Your task to perform on an android device: Open the web browser Image 0: 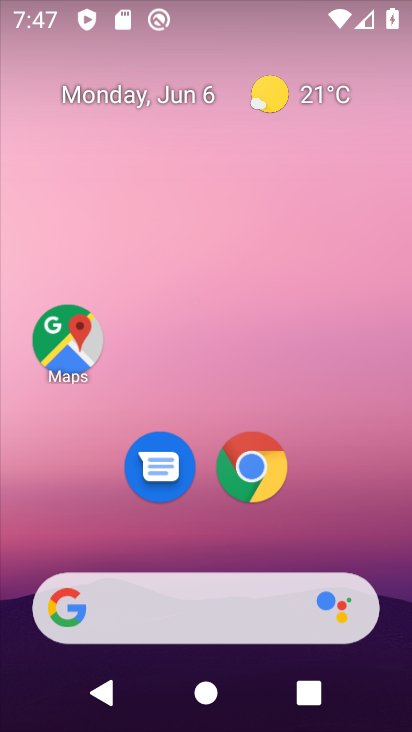
Step 0: click (263, 90)
Your task to perform on an android device: Open the web browser Image 1: 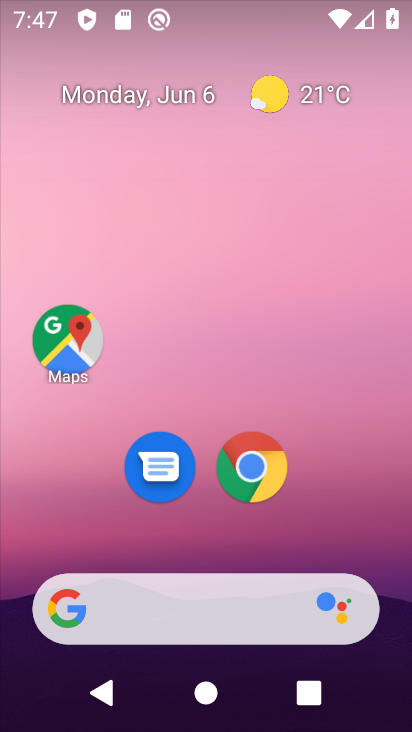
Step 1: drag from (186, 74) to (246, 114)
Your task to perform on an android device: Open the web browser Image 2: 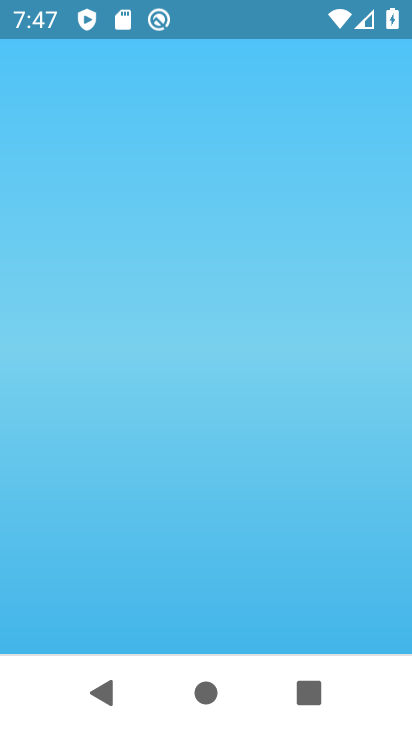
Step 2: drag from (285, 45) to (332, 99)
Your task to perform on an android device: Open the web browser Image 3: 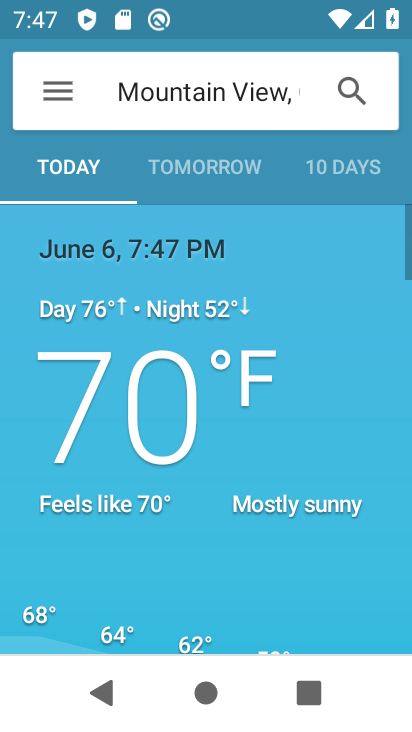
Step 3: press back button
Your task to perform on an android device: Open the web browser Image 4: 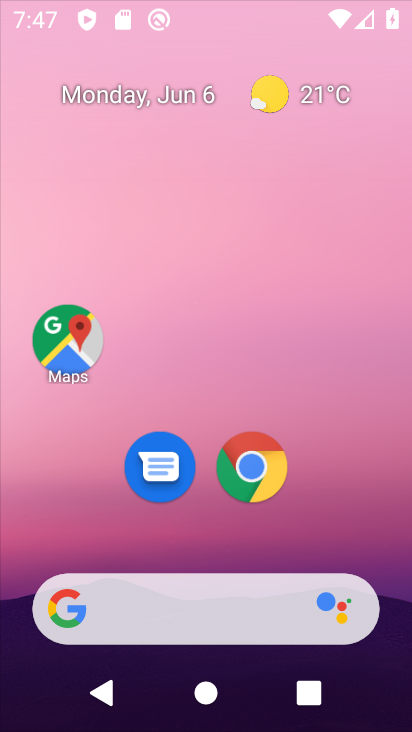
Step 4: press home button
Your task to perform on an android device: Open the web browser Image 5: 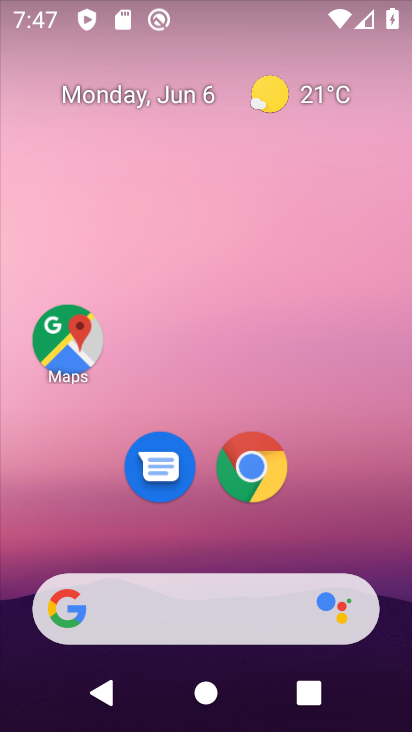
Step 5: drag from (218, 17) to (155, 136)
Your task to perform on an android device: Open the web browser Image 6: 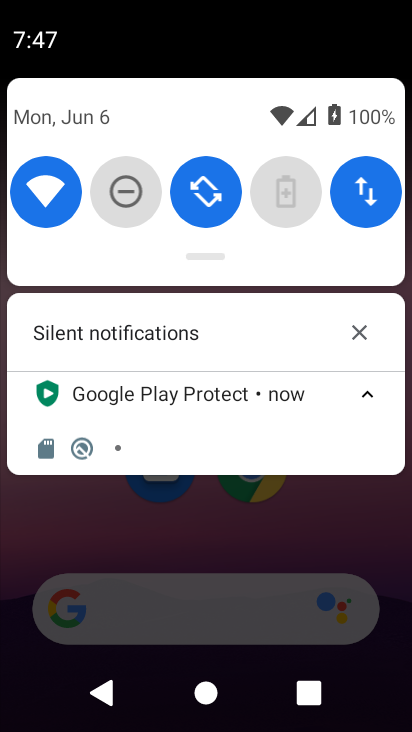
Step 6: drag from (243, 400) to (223, 76)
Your task to perform on an android device: Open the web browser Image 7: 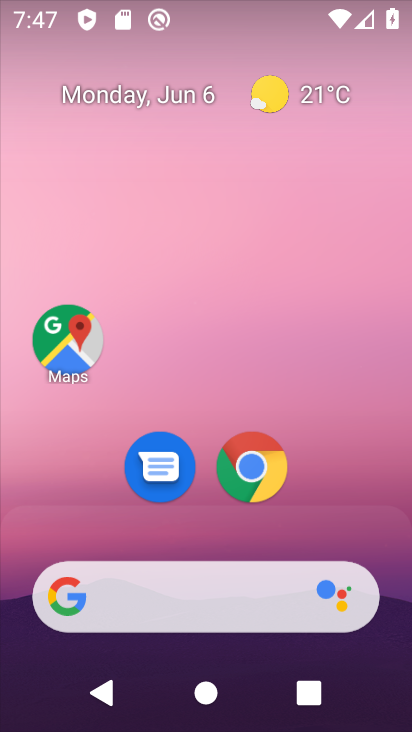
Step 7: drag from (225, 596) to (180, 57)
Your task to perform on an android device: Open the web browser Image 8: 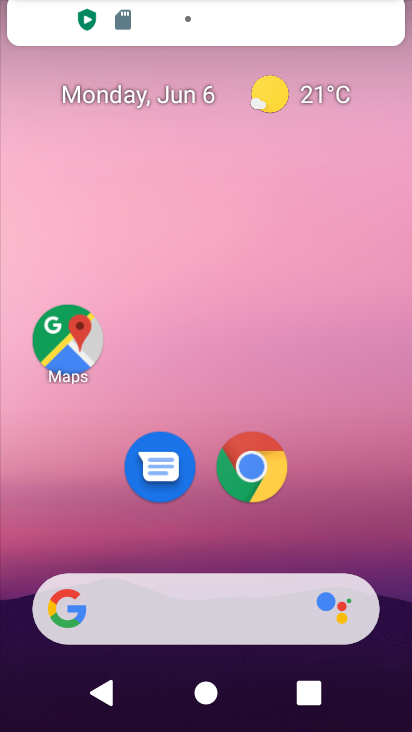
Step 8: drag from (237, 567) to (207, 67)
Your task to perform on an android device: Open the web browser Image 9: 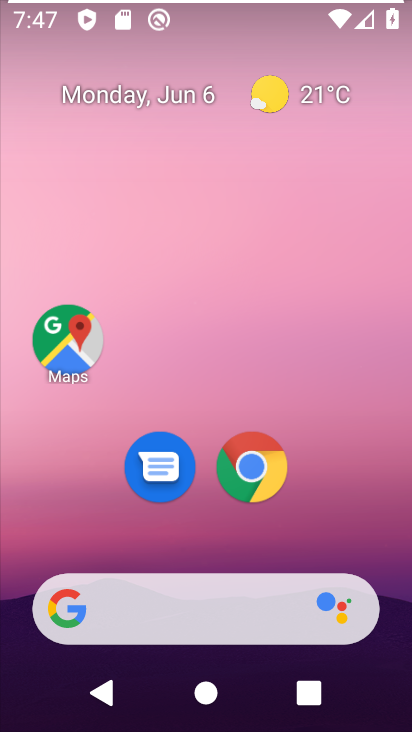
Step 9: drag from (286, 463) to (208, 93)
Your task to perform on an android device: Open the web browser Image 10: 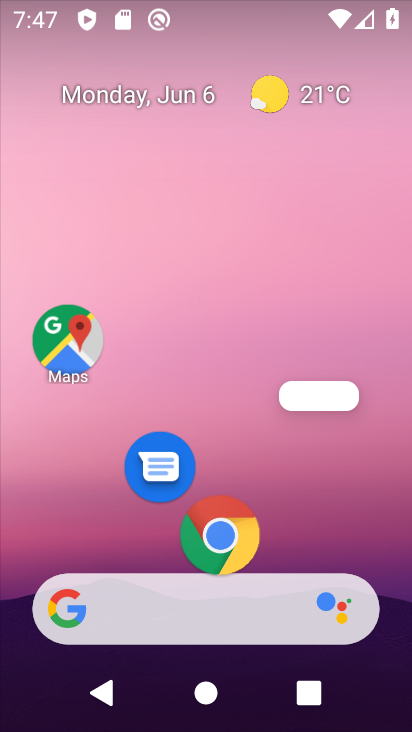
Step 10: drag from (259, 599) to (219, 132)
Your task to perform on an android device: Open the web browser Image 11: 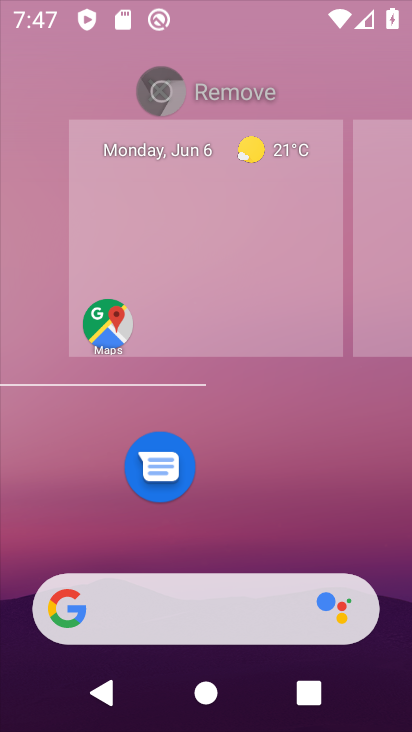
Step 11: drag from (302, 624) to (194, 107)
Your task to perform on an android device: Open the web browser Image 12: 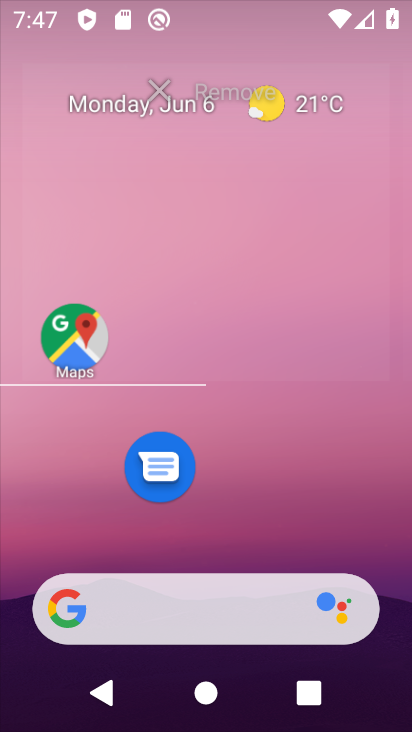
Step 12: drag from (249, 584) to (202, 250)
Your task to perform on an android device: Open the web browser Image 13: 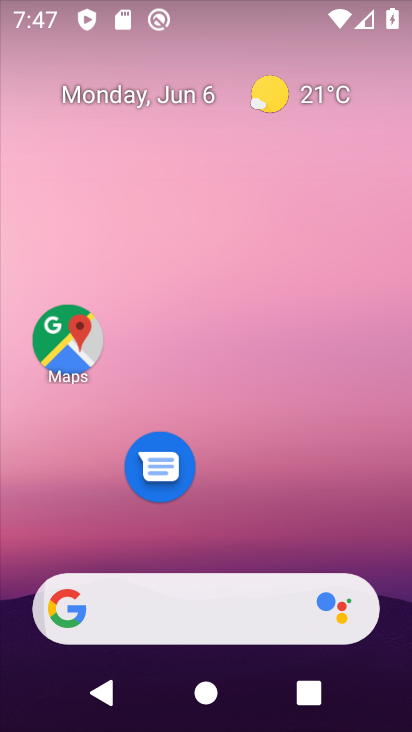
Step 13: click (89, 72)
Your task to perform on an android device: Open the web browser Image 14: 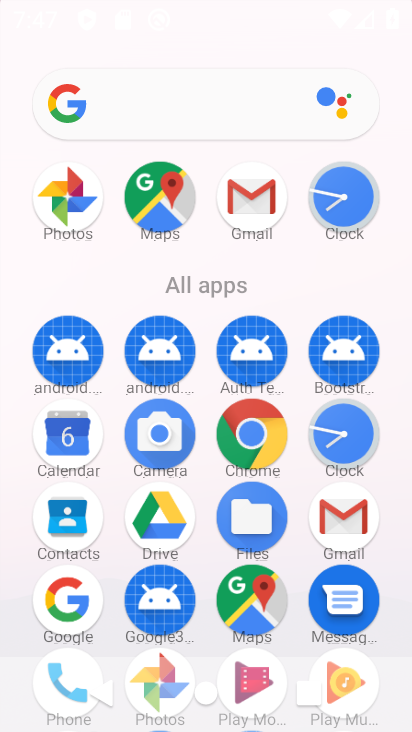
Step 14: drag from (206, 674) to (123, 146)
Your task to perform on an android device: Open the web browser Image 15: 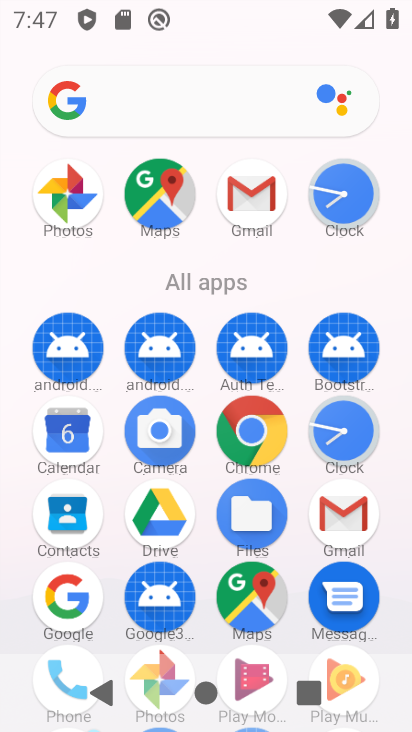
Step 15: drag from (290, 630) to (290, 205)
Your task to perform on an android device: Open the web browser Image 16: 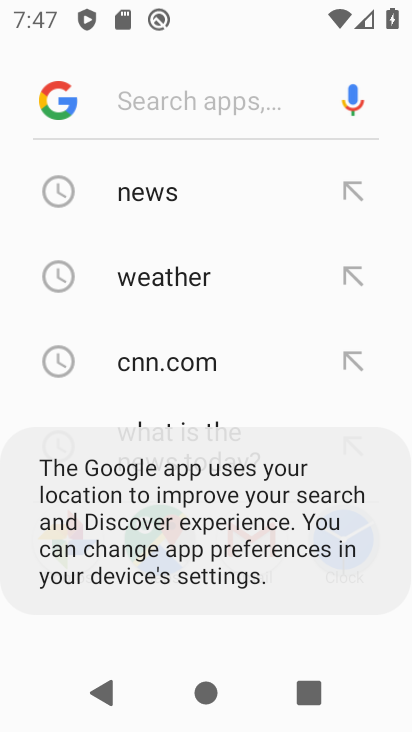
Step 16: drag from (251, 364) to (205, 145)
Your task to perform on an android device: Open the web browser Image 17: 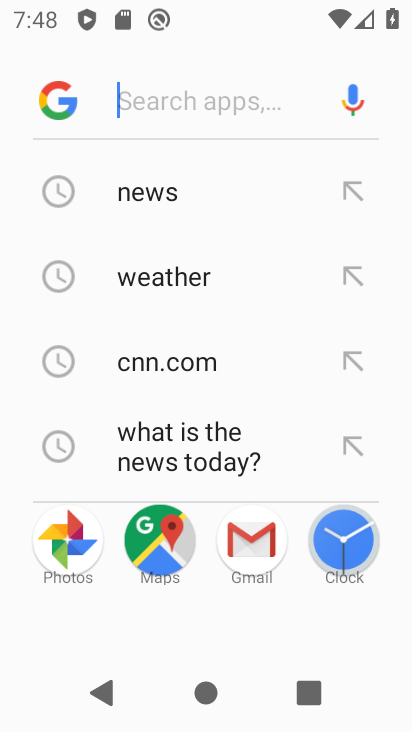
Step 17: press back button
Your task to perform on an android device: Open the web browser Image 18: 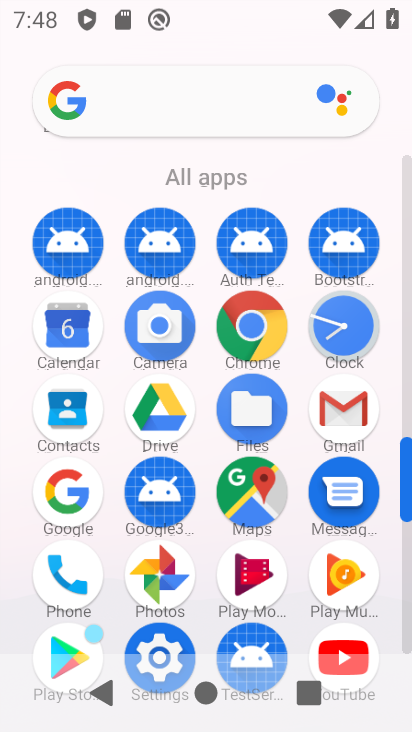
Step 18: click (238, 331)
Your task to perform on an android device: Open the web browser Image 19: 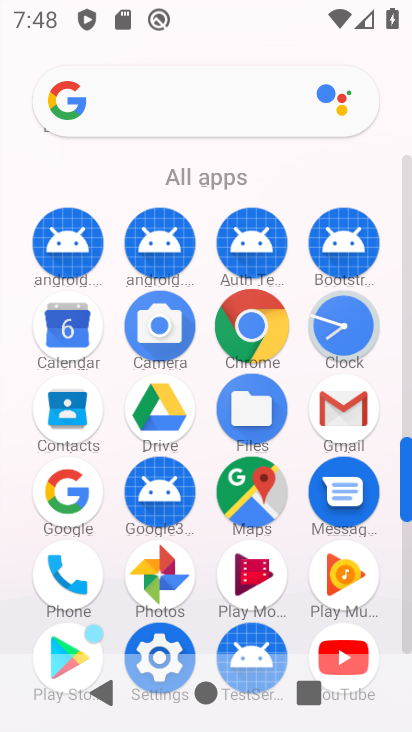
Step 19: click (239, 331)
Your task to perform on an android device: Open the web browser Image 20: 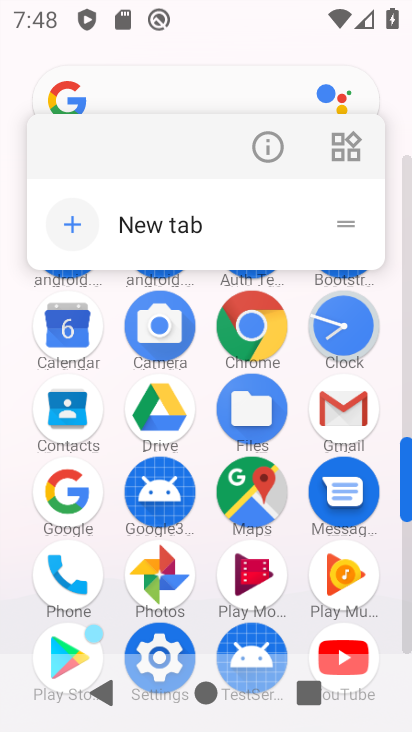
Step 20: click (245, 329)
Your task to perform on an android device: Open the web browser Image 21: 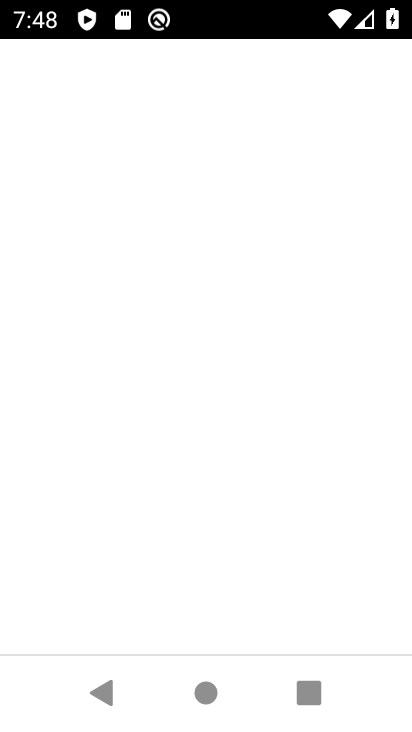
Step 21: click (253, 322)
Your task to perform on an android device: Open the web browser Image 22: 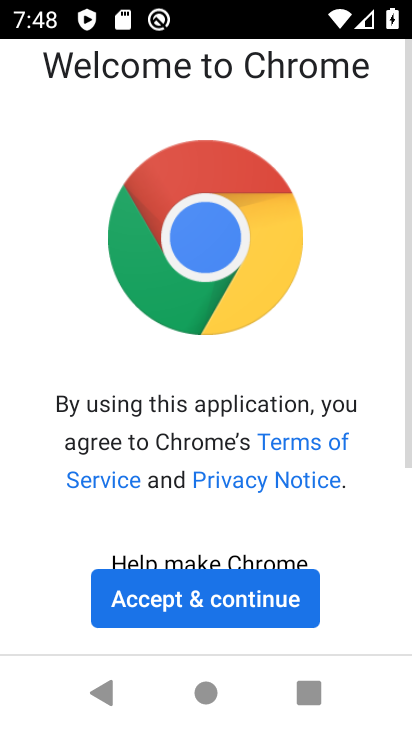
Step 22: task complete